Your task to perform on an android device: Show me productivity apps on the Play Store Image 0: 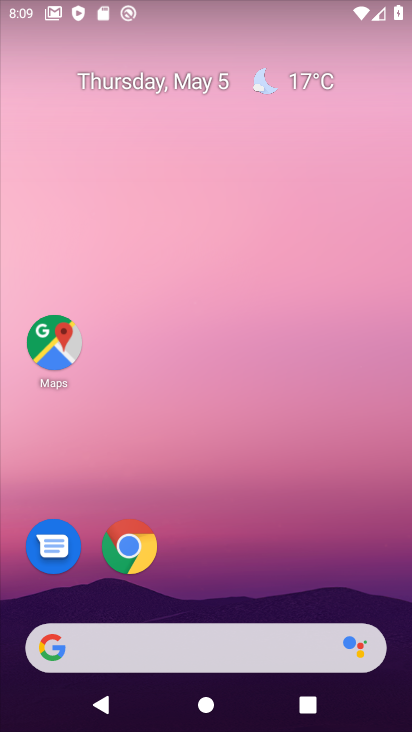
Step 0: drag from (213, 641) to (327, 127)
Your task to perform on an android device: Show me productivity apps on the Play Store Image 1: 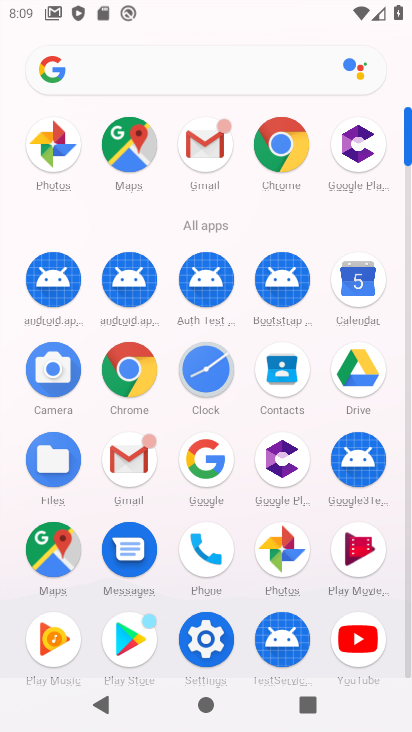
Step 1: click (122, 644)
Your task to perform on an android device: Show me productivity apps on the Play Store Image 2: 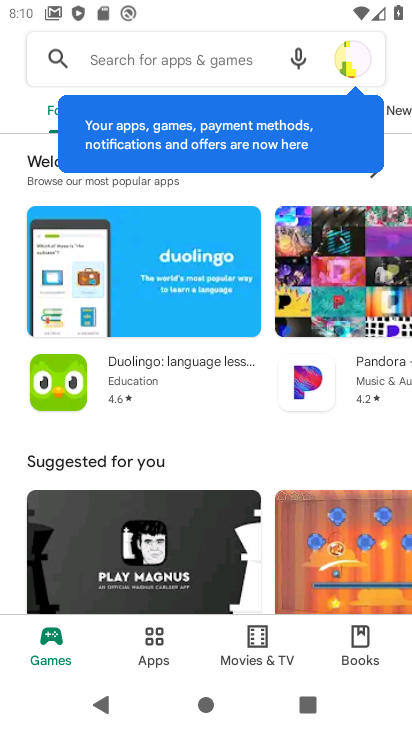
Step 2: click (147, 647)
Your task to perform on an android device: Show me productivity apps on the Play Store Image 3: 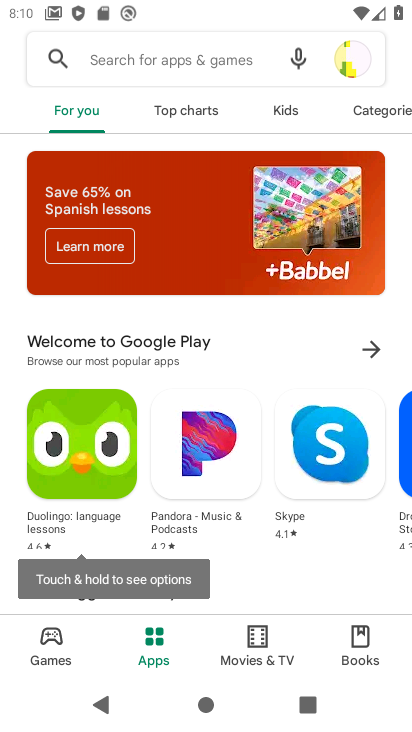
Step 3: drag from (358, 110) to (119, 129)
Your task to perform on an android device: Show me productivity apps on the Play Store Image 4: 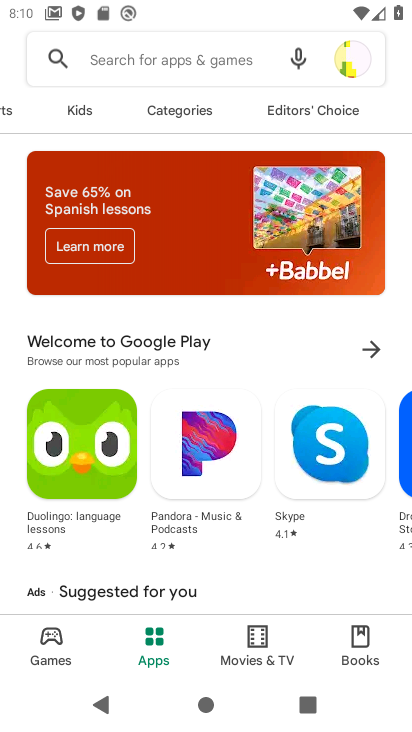
Step 4: click (200, 114)
Your task to perform on an android device: Show me productivity apps on the Play Store Image 5: 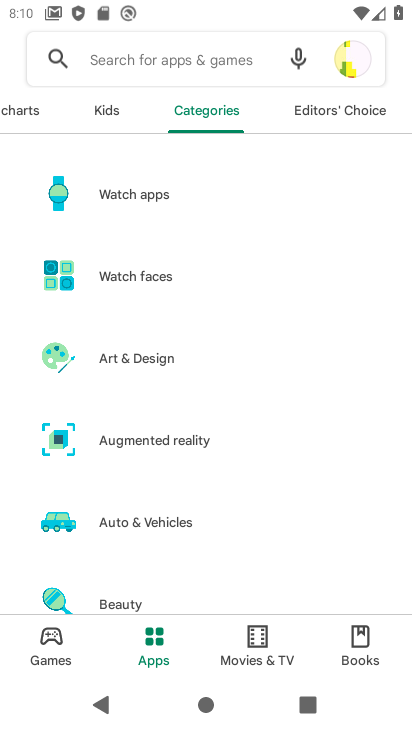
Step 5: drag from (194, 573) to (343, 104)
Your task to perform on an android device: Show me productivity apps on the Play Store Image 6: 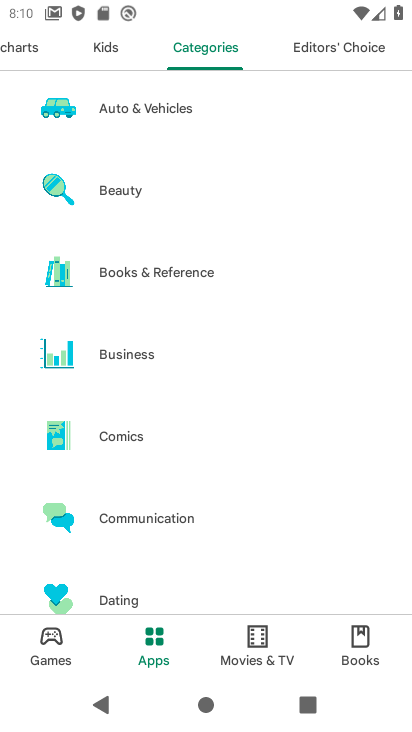
Step 6: drag from (209, 580) to (346, 142)
Your task to perform on an android device: Show me productivity apps on the Play Store Image 7: 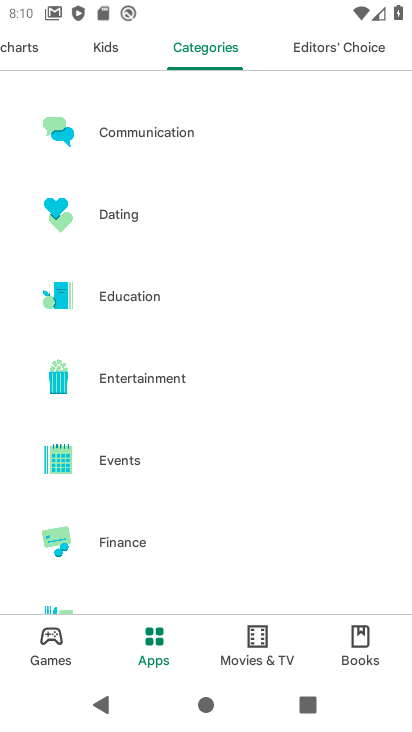
Step 7: drag from (247, 472) to (341, 77)
Your task to perform on an android device: Show me productivity apps on the Play Store Image 8: 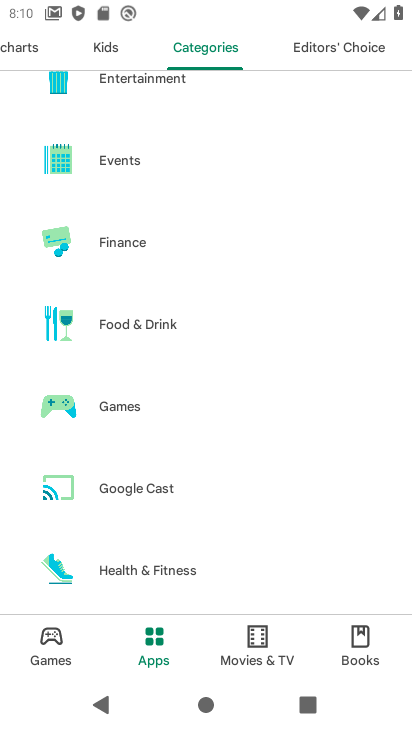
Step 8: drag from (225, 607) to (331, 217)
Your task to perform on an android device: Show me productivity apps on the Play Store Image 9: 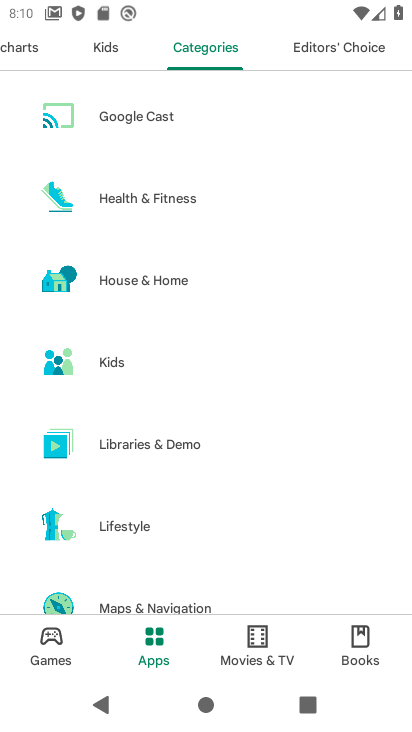
Step 9: drag from (211, 599) to (337, 196)
Your task to perform on an android device: Show me productivity apps on the Play Store Image 10: 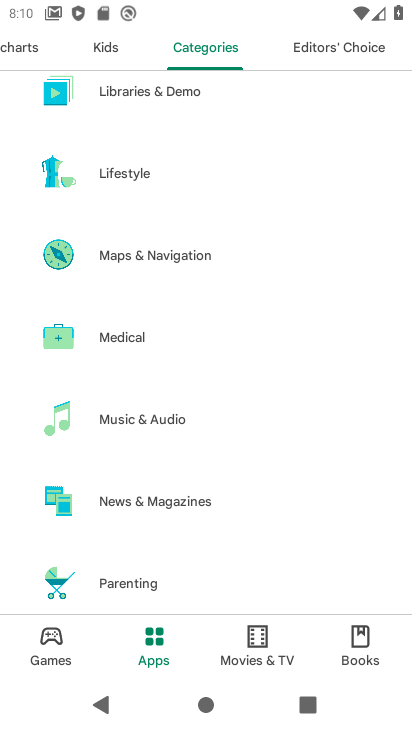
Step 10: drag from (221, 582) to (292, 231)
Your task to perform on an android device: Show me productivity apps on the Play Store Image 11: 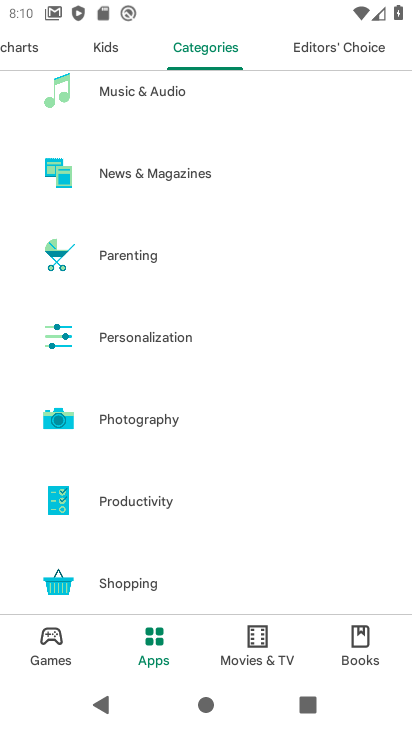
Step 11: click (153, 499)
Your task to perform on an android device: Show me productivity apps on the Play Store Image 12: 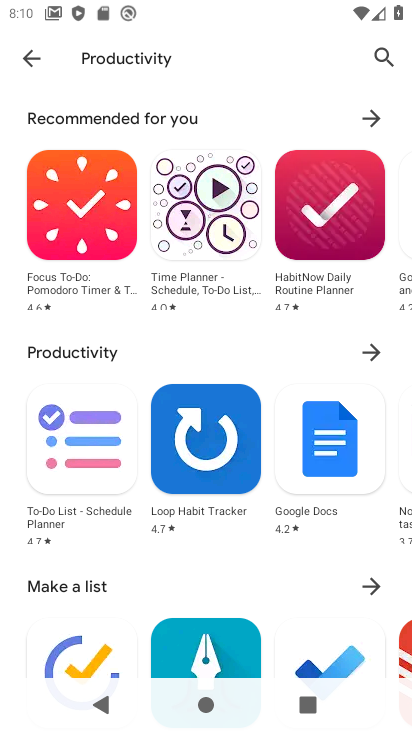
Step 12: task complete